Your task to perform on an android device: Set the phone to "Do not disturb". Image 0: 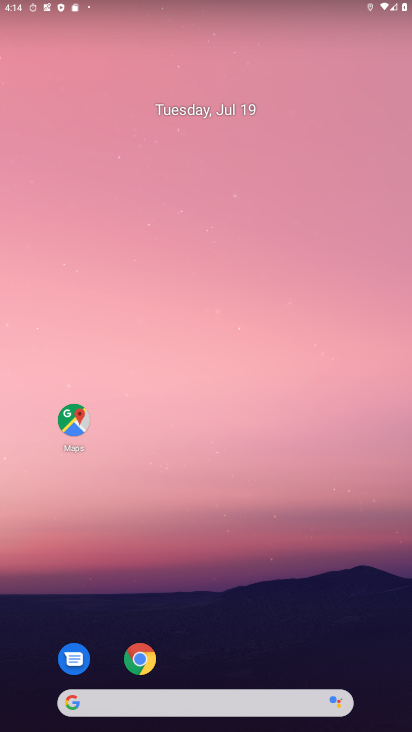
Step 0: drag from (299, 649) to (346, 3)
Your task to perform on an android device: Set the phone to "Do not disturb". Image 1: 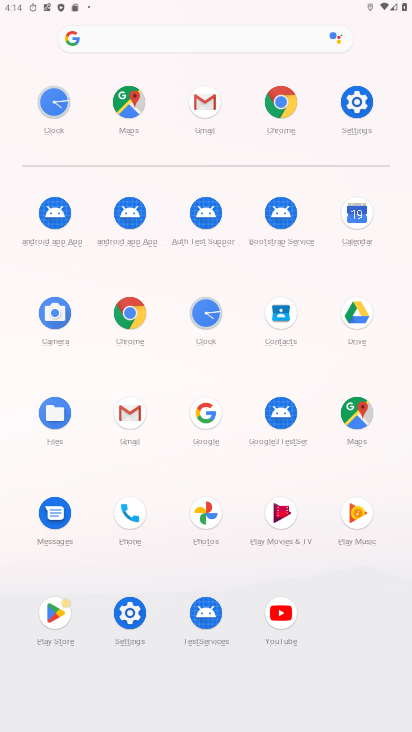
Step 1: click (359, 99)
Your task to perform on an android device: Set the phone to "Do not disturb". Image 2: 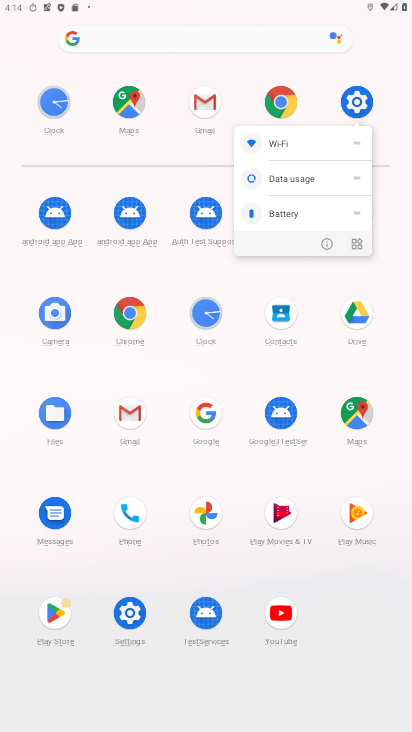
Step 2: click (363, 103)
Your task to perform on an android device: Set the phone to "Do not disturb". Image 3: 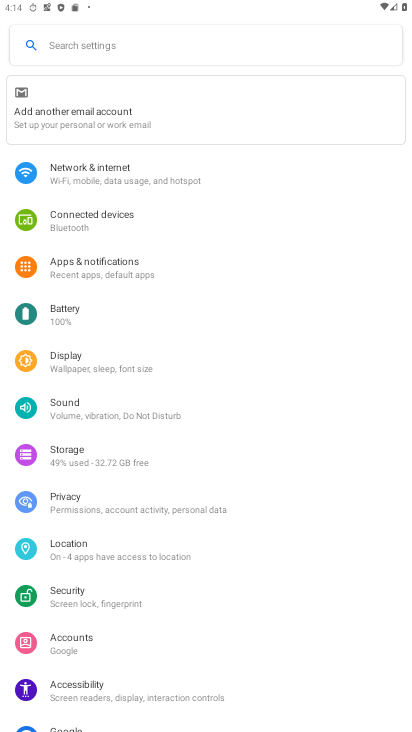
Step 3: click (65, 412)
Your task to perform on an android device: Set the phone to "Do not disturb". Image 4: 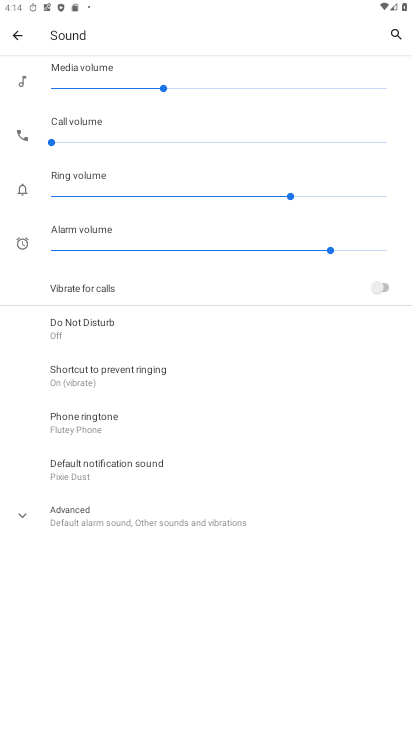
Step 4: click (99, 325)
Your task to perform on an android device: Set the phone to "Do not disturb". Image 5: 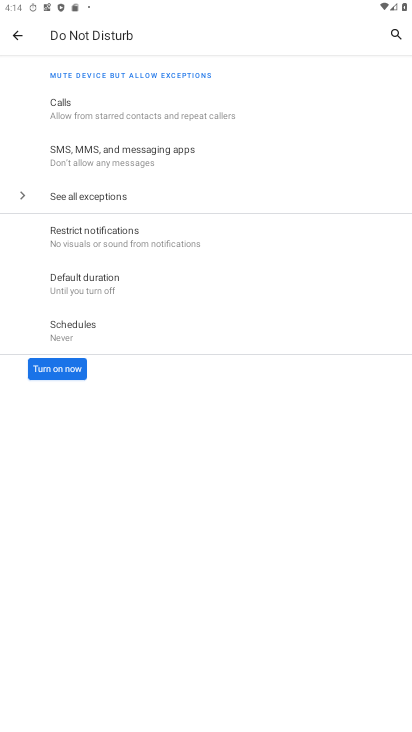
Step 5: click (55, 366)
Your task to perform on an android device: Set the phone to "Do not disturb". Image 6: 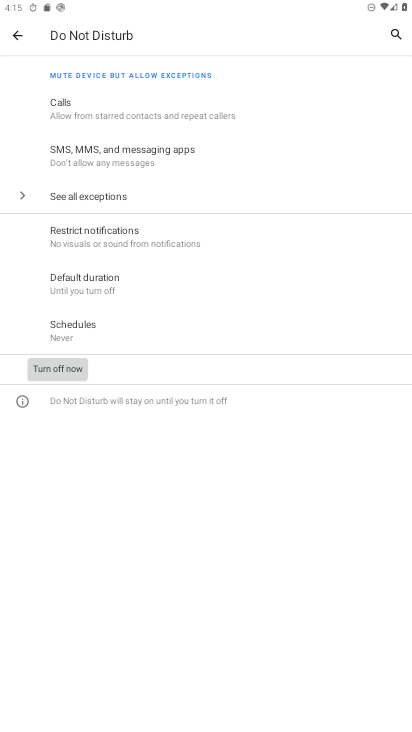
Step 6: task complete